Your task to perform on an android device: turn on data saver in the chrome app Image 0: 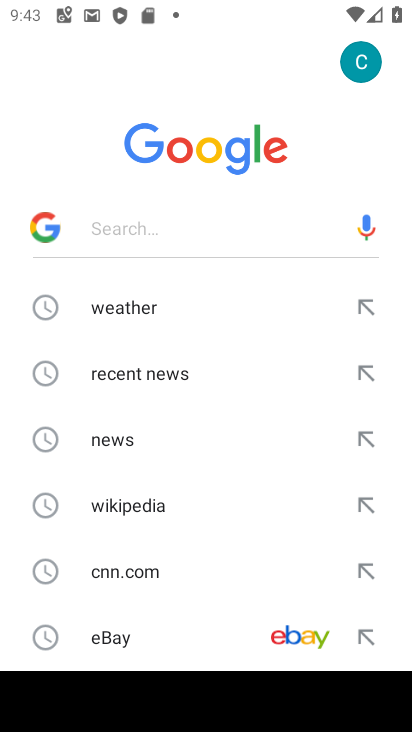
Step 0: press home button
Your task to perform on an android device: turn on data saver in the chrome app Image 1: 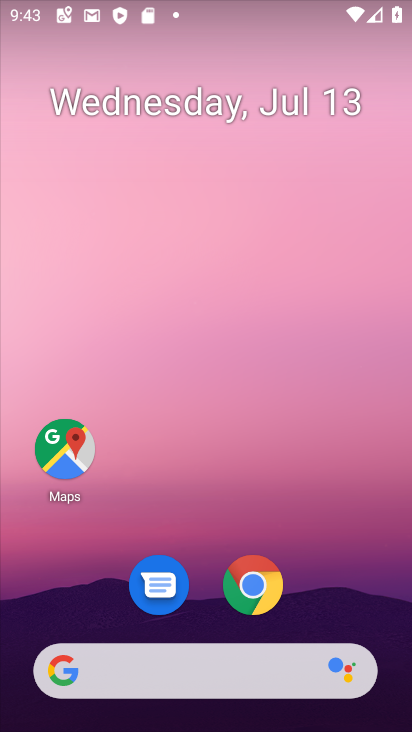
Step 1: click (251, 576)
Your task to perform on an android device: turn on data saver in the chrome app Image 2: 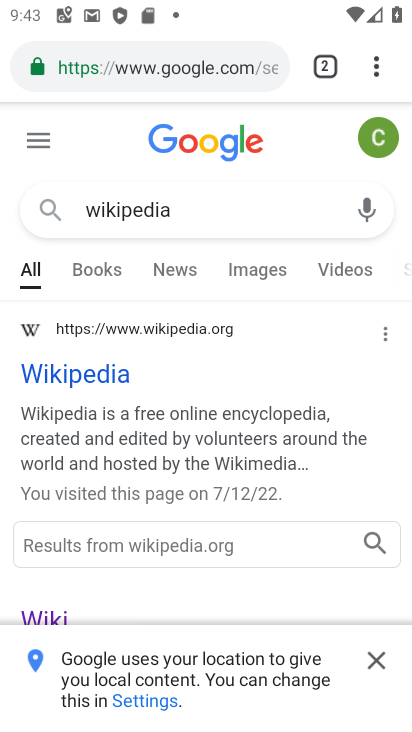
Step 2: click (379, 63)
Your task to perform on an android device: turn on data saver in the chrome app Image 3: 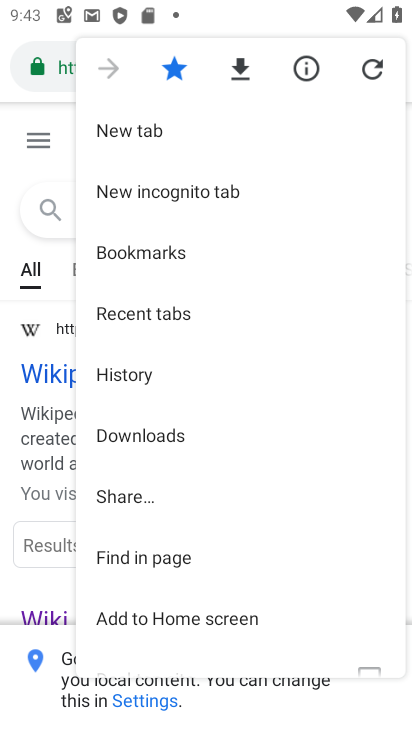
Step 3: drag from (199, 541) to (213, 197)
Your task to perform on an android device: turn on data saver in the chrome app Image 4: 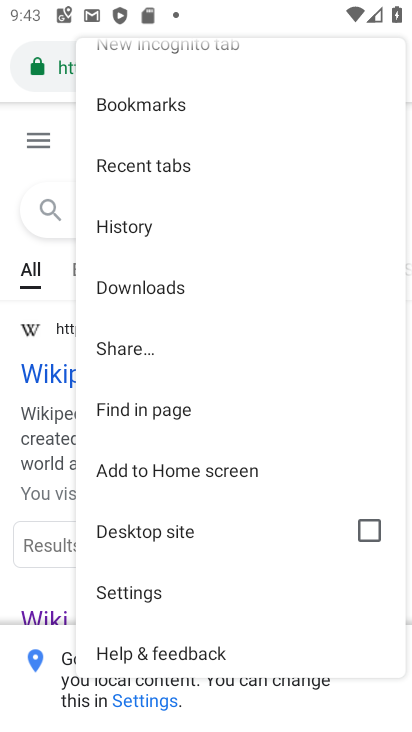
Step 4: click (142, 587)
Your task to perform on an android device: turn on data saver in the chrome app Image 5: 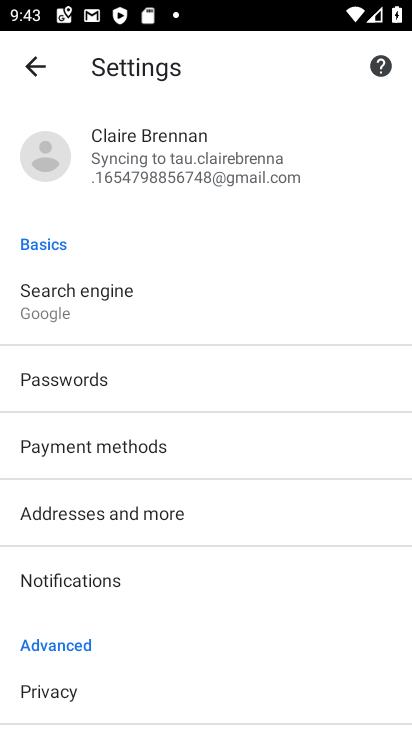
Step 5: drag from (242, 599) to (223, 222)
Your task to perform on an android device: turn on data saver in the chrome app Image 6: 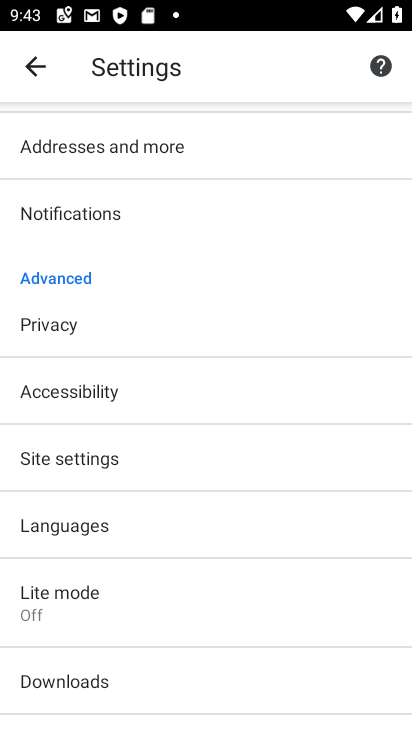
Step 6: click (124, 617)
Your task to perform on an android device: turn on data saver in the chrome app Image 7: 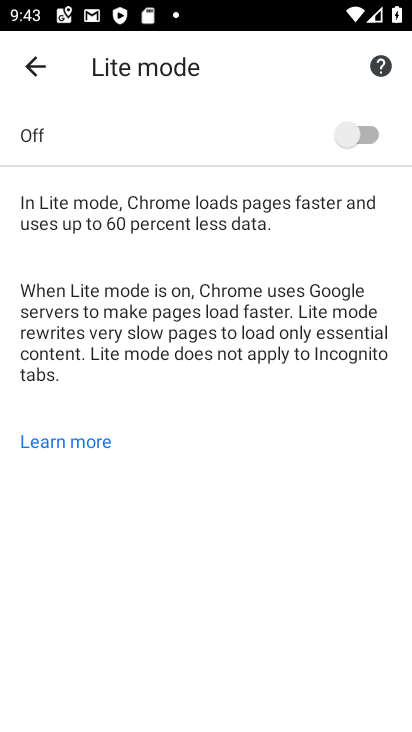
Step 7: click (354, 130)
Your task to perform on an android device: turn on data saver in the chrome app Image 8: 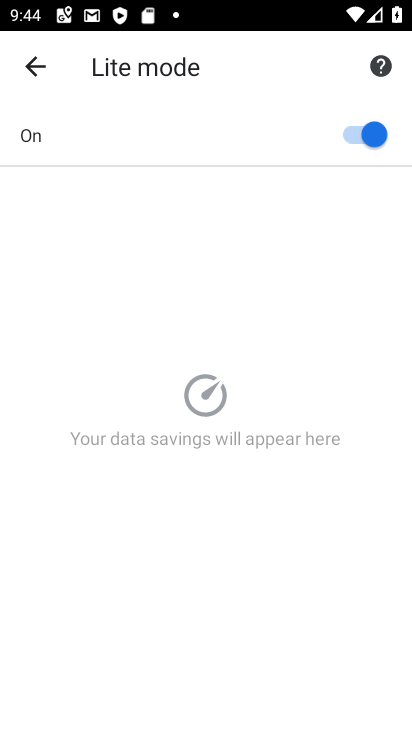
Step 8: task complete